Your task to perform on an android device: Go to calendar. Show me events next week Image 0: 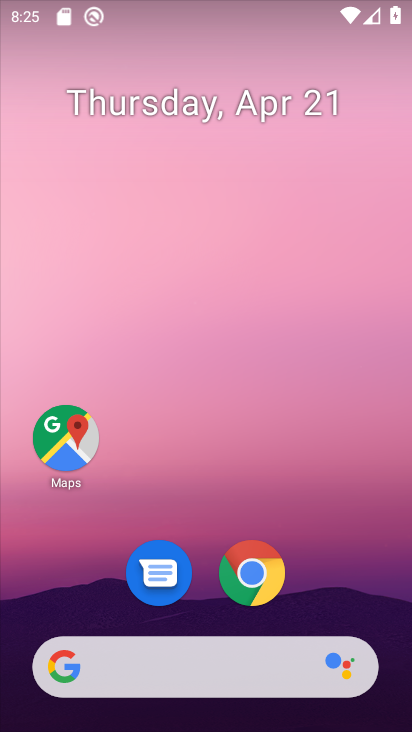
Step 0: drag from (189, 516) to (206, 49)
Your task to perform on an android device: Go to calendar. Show me events next week Image 1: 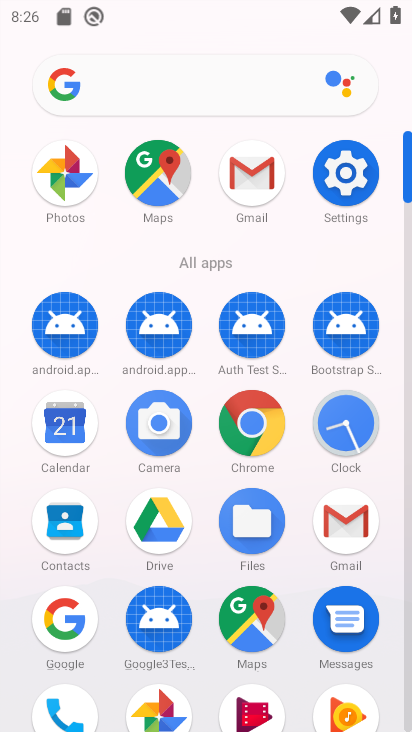
Step 1: click (58, 427)
Your task to perform on an android device: Go to calendar. Show me events next week Image 2: 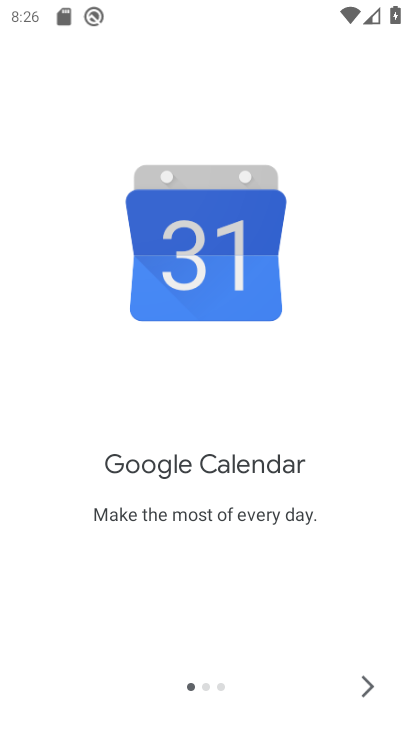
Step 2: click (368, 682)
Your task to perform on an android device: Go to calendar. Show me events next week Image 3: 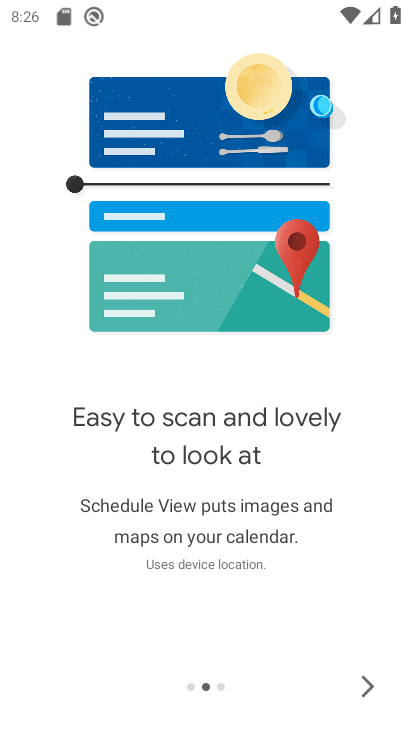
Step 3: click (368, 682)
Your task to perform on an android device: Go to calendar. Show me events next week Image 4: 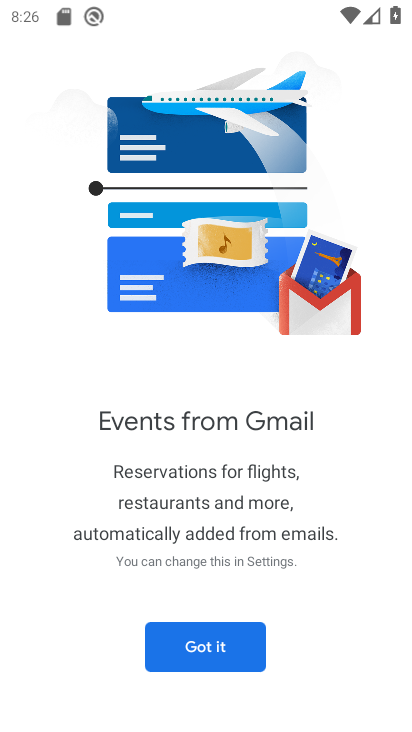
Step 4: click (212, 645)
Your task to perform on an android device: Go to calendar. Show me events next week Image 5: 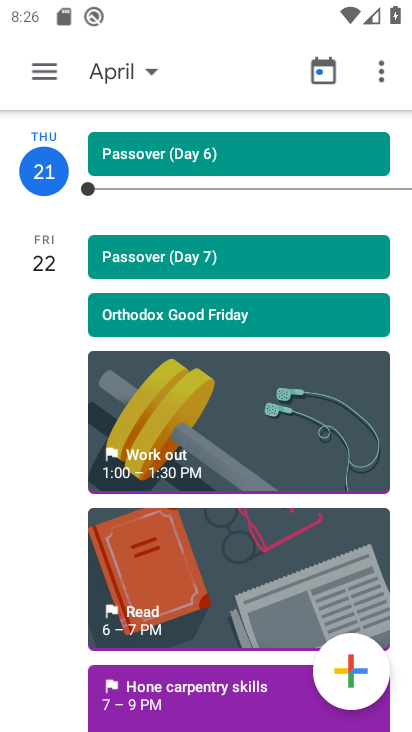
Step 5: click (148, 65)
Your task to perform on an android device: Go to calendar. Show me events next week Image 6: 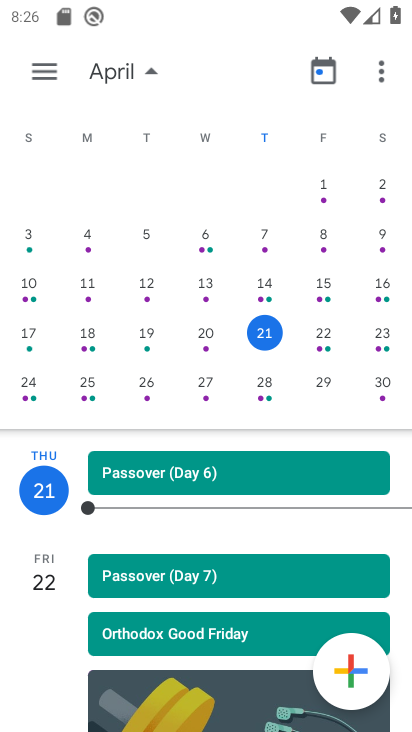
Step 6: click (139, 378)
Your task to perform on an android device: Go to calendar. Show me events next week Image 7: 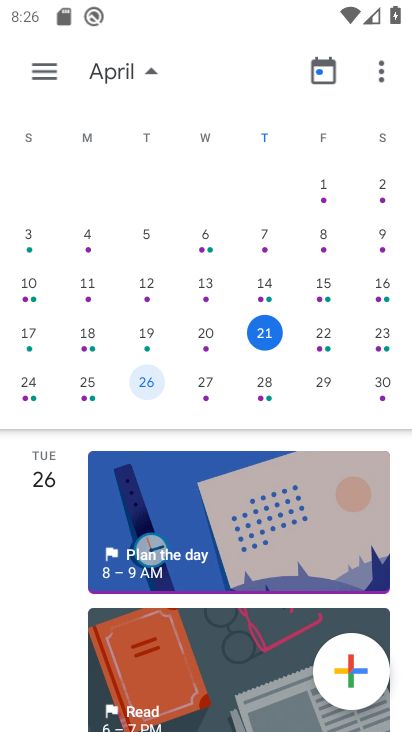
Step 7: click (50, 67)
Your task to perform on an android device: Go to calendar. Show me events next week Image 8: 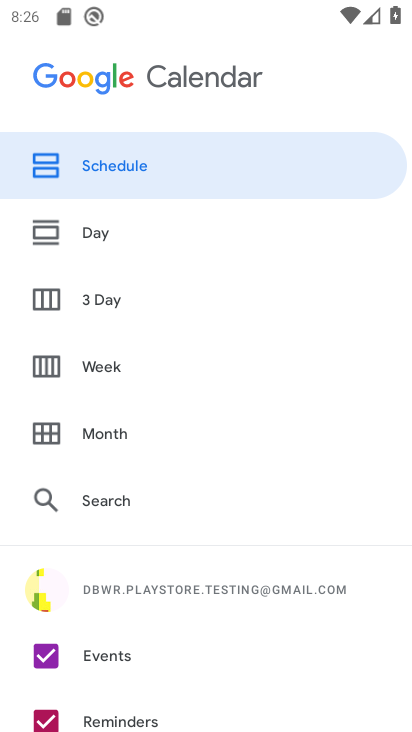
Step 8: click (118, 376)
Your task to perform on an android device: Go to calendar. Show me events next week Image 9: 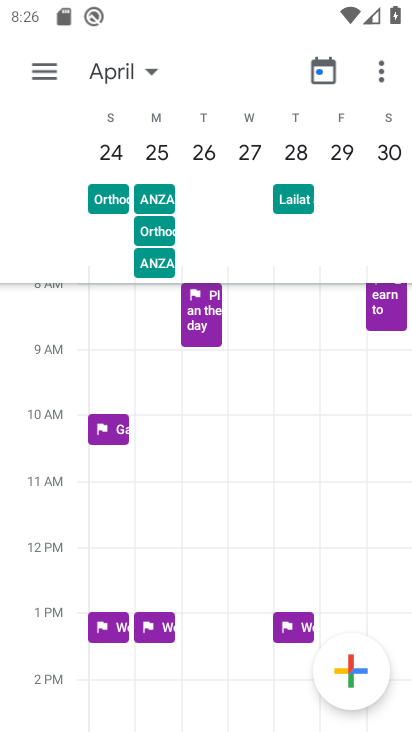
Step 9: task complete